Your task to perform on an android device: turn on improve location accuracy Image 0: 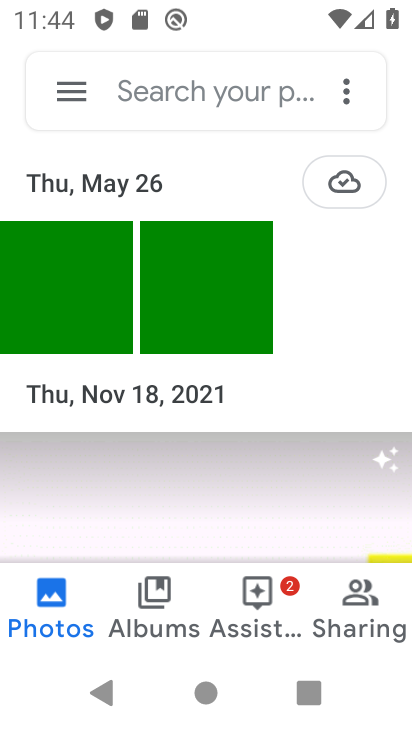
Step 0: press back button
Your task to perform on an android device: turn on improve location accuracy Image 1: 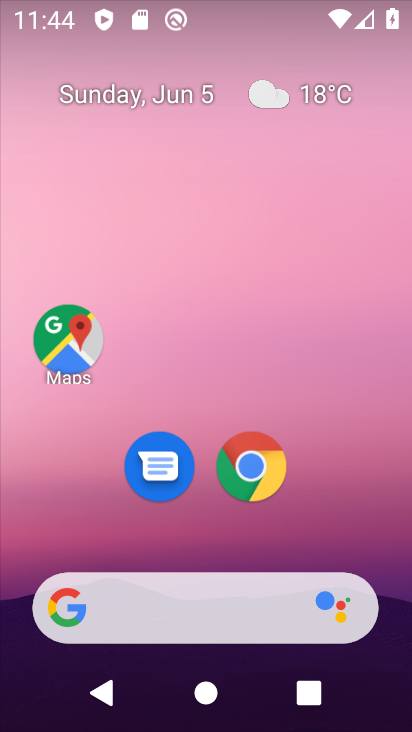
Step 1: drag from (358, 504) to (242, 26)
Your task to perform on an android device: turn on improve location accuracy Image 2: 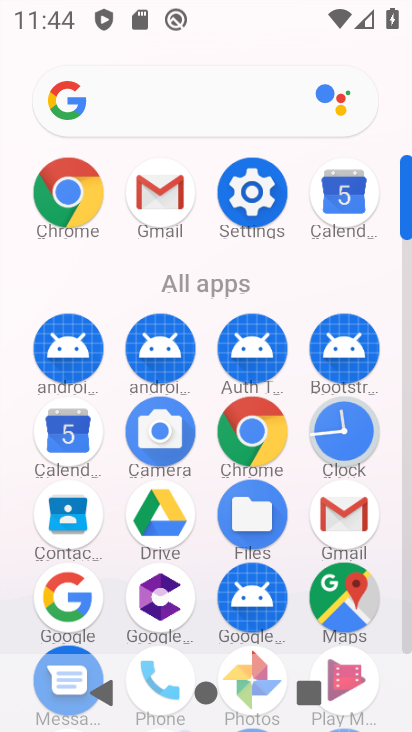
Step 2: drag from (21, 607) to (1, 227)
Your task to perform on an android device: turn on improve location accuracy Image 3: 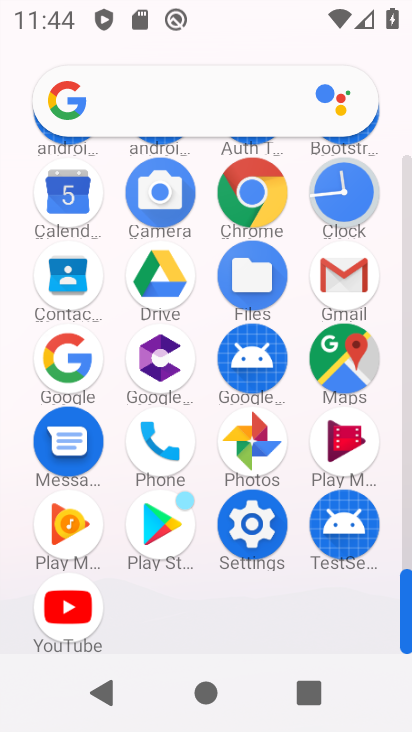
Step 3: drag from (7, 626) to (15, 262)
Your task to perform on an android device: turn on improve location accuracy Image 4: 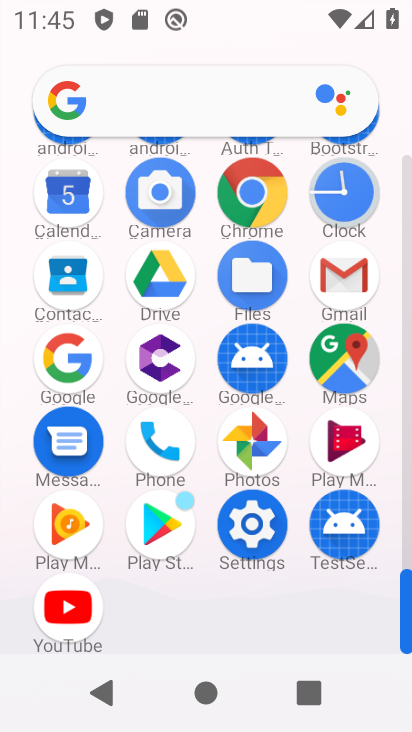
Step 4: click (255, 522)
Your task to perform on an android device: turn on improve location accuracy Image 5: 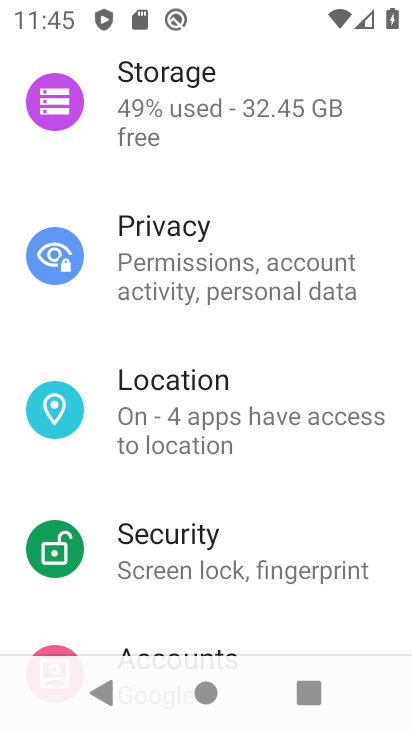
Step 5: click (271, 404)
Your task to perform on an android device: turn on improve location accuracy Image 6: 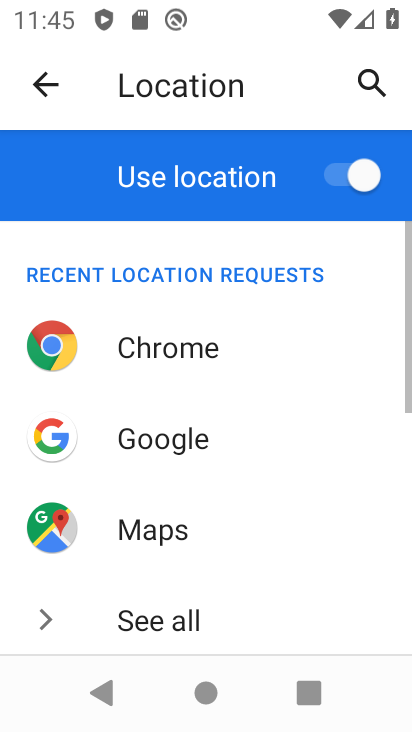
Step 6: drag from (266, 524) to (254, 160)
Your task to perform on an android device: turn on improve location accuracy Image 7: 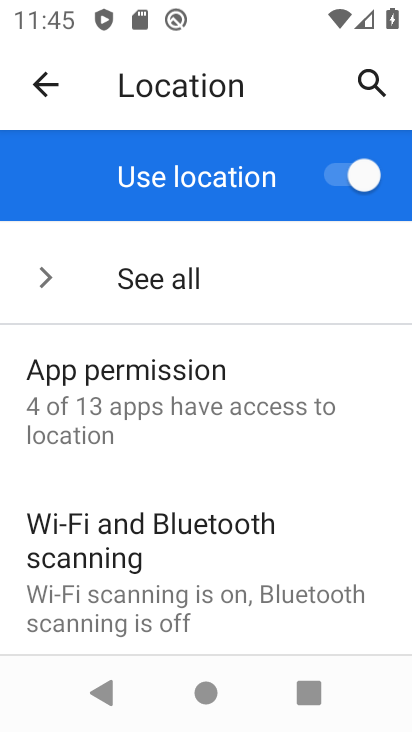
Step 7: drag from (226, 548) to (249, 238)
Your task to perform on an android device: turn on improve location accuracy Image 8: 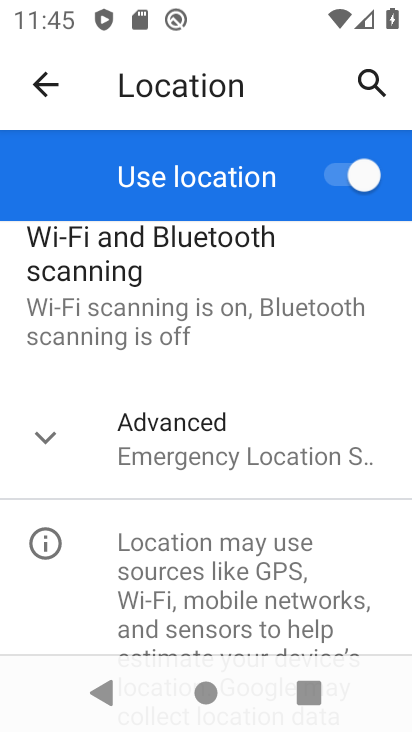
Step 8: click (115, 444)
Your task to perform on an android device: turn on improve location accuracy Image 9: 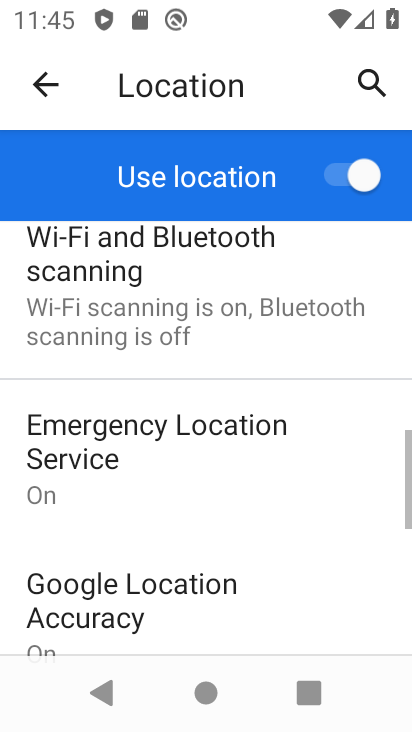
Step 9: drag from (182, 567) to (221, 282)
Your task to perform on an android device: turn on improve location accuracy Image 10: 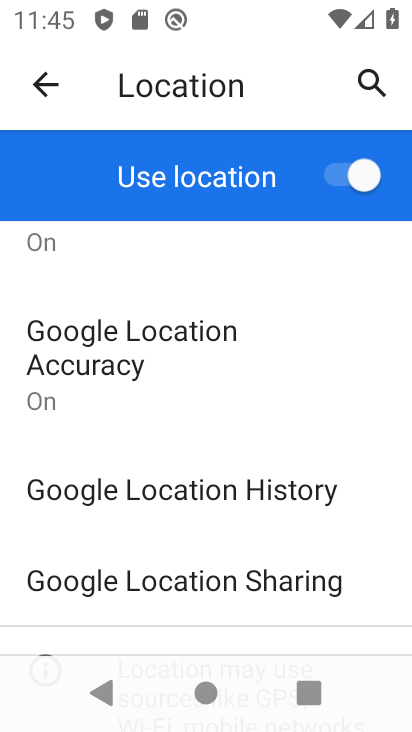
Step 10: click (133, 358)
Your task to perform on an android device: turn on improve location accuracy Image 11: 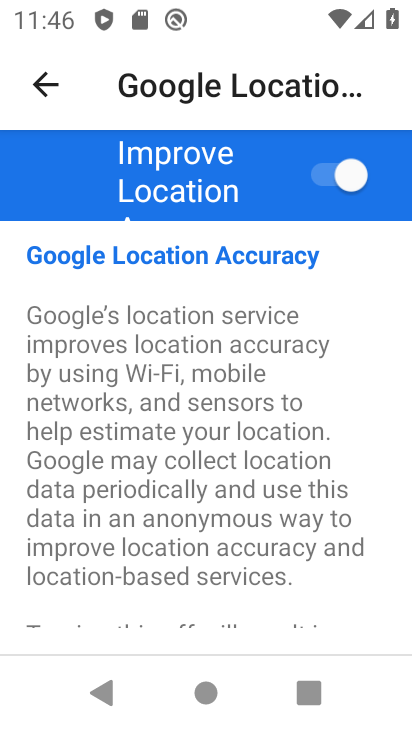
Step 11: task complete